Your task to perform on an android device: Open Chrome and go to settings Image 0: 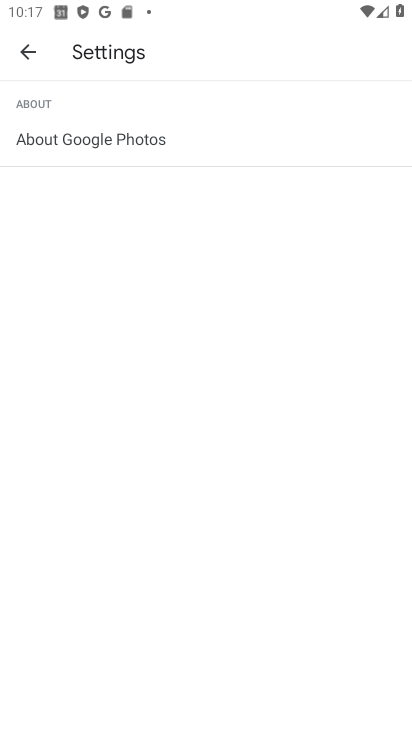
Step 0: press home button
Your task to perform on an android device: Open Chrome and go to settings Image 1: 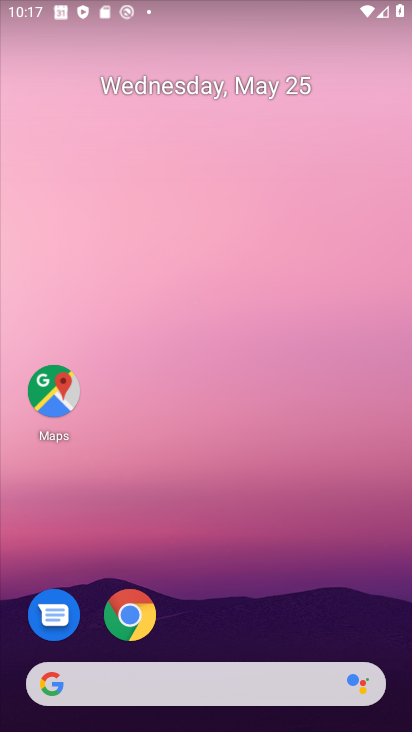
Step 1: click (141, 623)
Your task to perform on an android device: Open Chrome and go to settings Image 2: 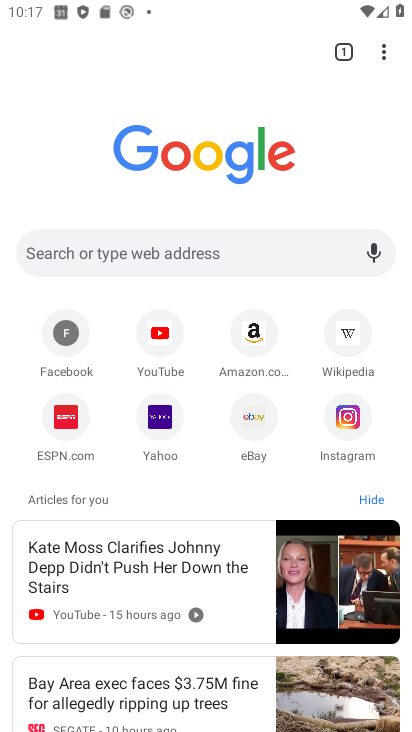
Step 2: click (385, 57)
Your task to perform on an android device: Open Chrome and go to settings Image 3: 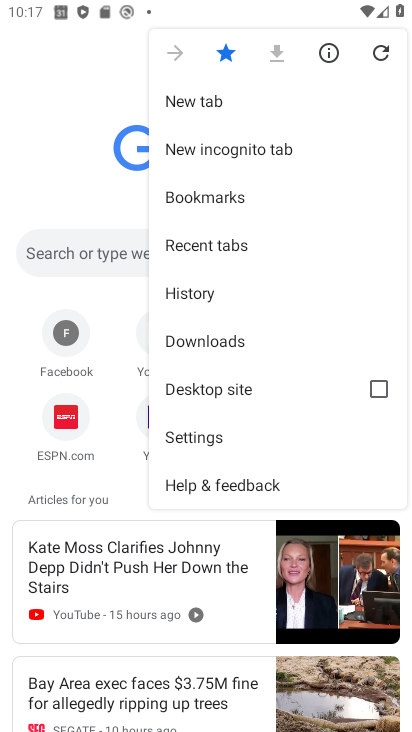
Step 3: click (199, 436)
Your task to perform on an android device: Open Chrome and go to settings Image 4: 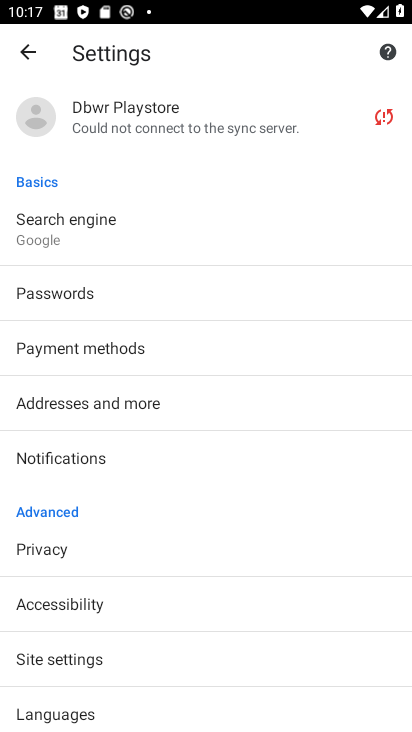
Step 4: task complete